Your task to perform on an android device: turn off smart reply in the gmail app Image 0: 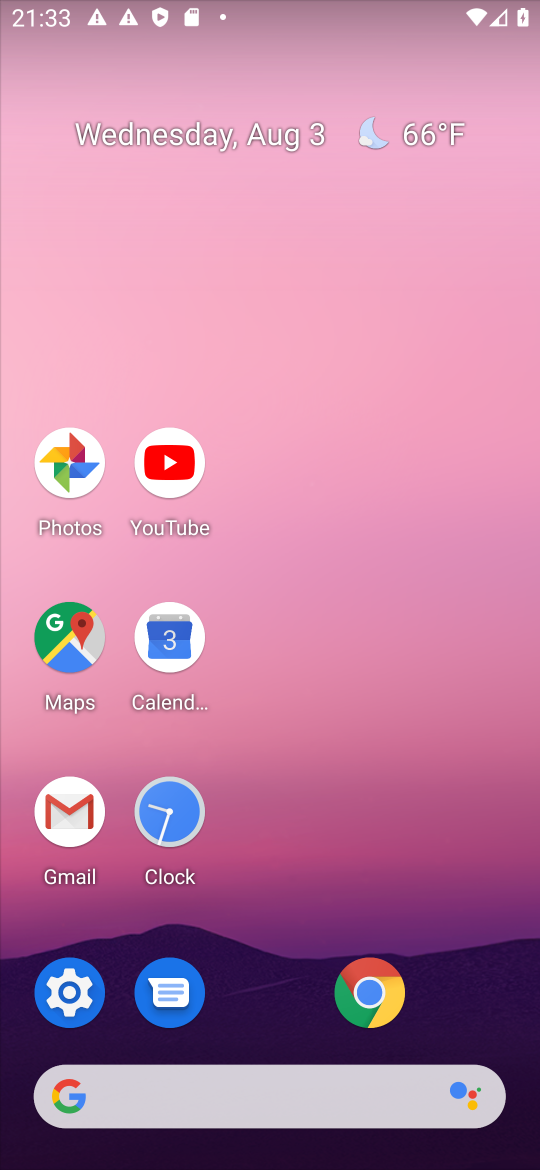
Step 0: click (52, 807)
Your task to perform on an android device: turn off smart reply in the gmail app Image 1: 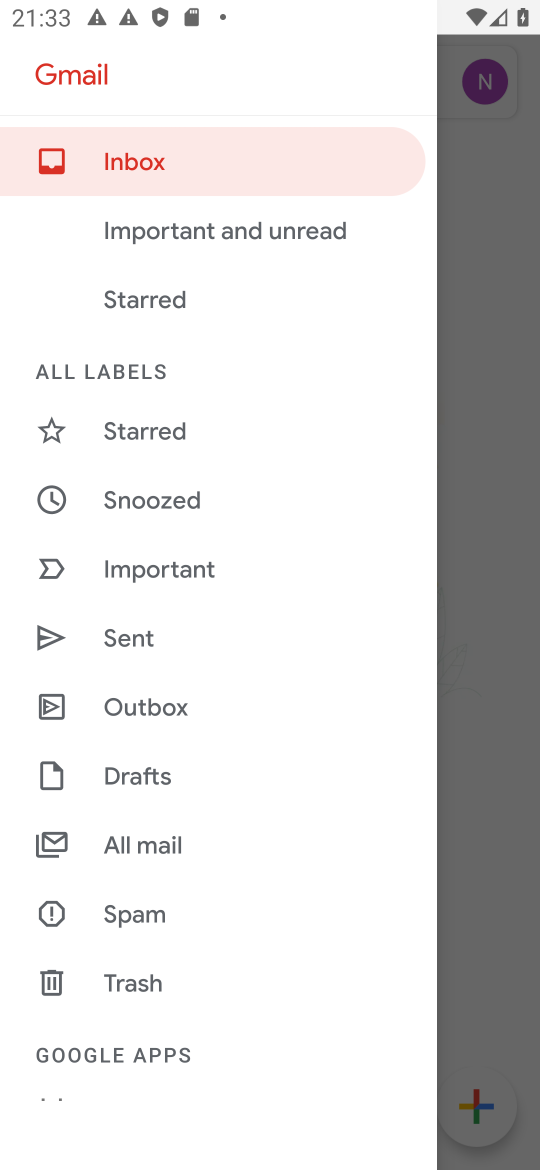
Step 1: drag from (270, 904) to (190, 151)
Your task to perform on an android device: turn off smart reply in the gmail app Image 2: 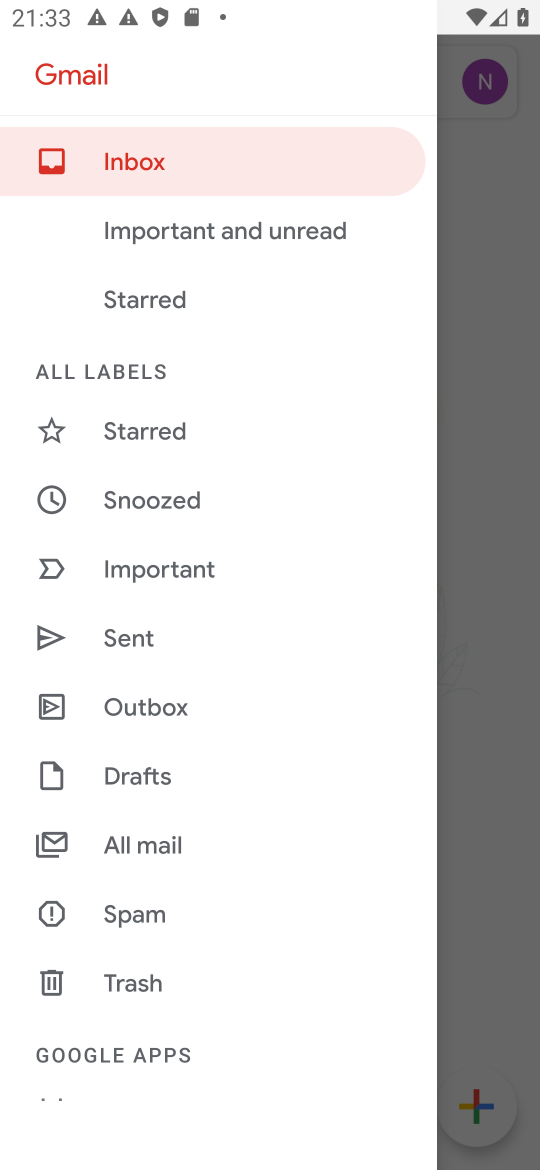
Step 2: drag from (234, 882) to (248, 206)
Your task to perform on an android device: turn off smart reply in the gmail app Image 3: 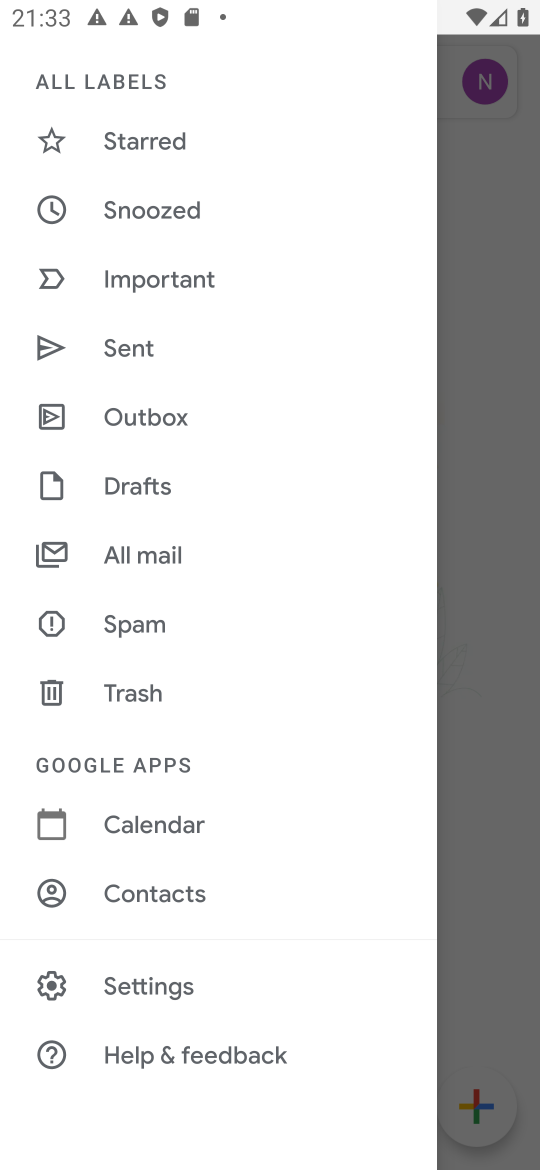
Step 3: click (148, 987)
Your task to perform on an android device: turn off smart reply in the gmail app Image 4: 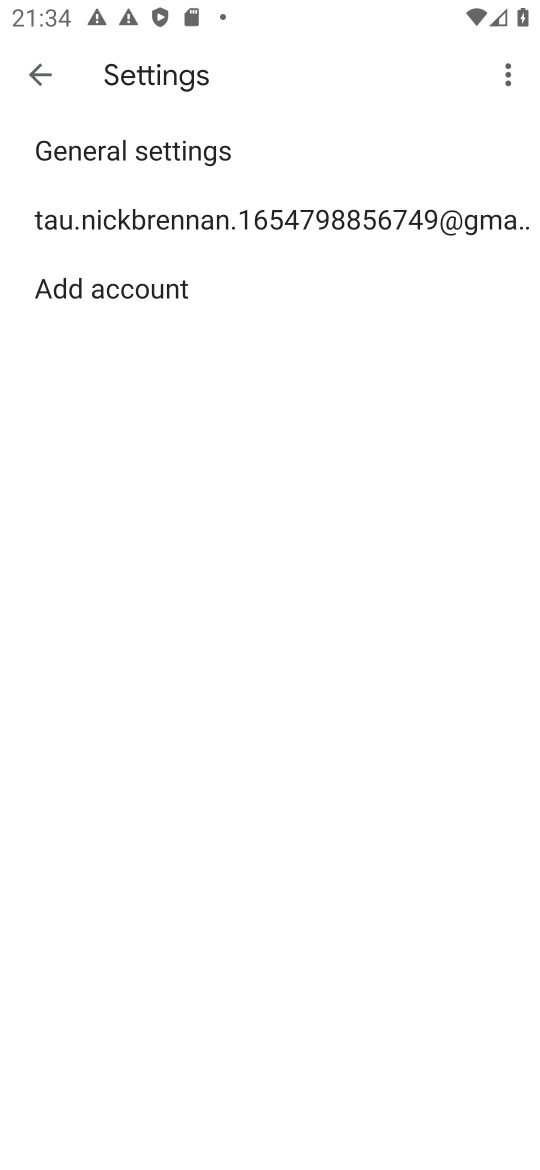
Step 4: click (172, 214)
Your task to perform on an android device: turn off smart reply in the gmail app Image 5: 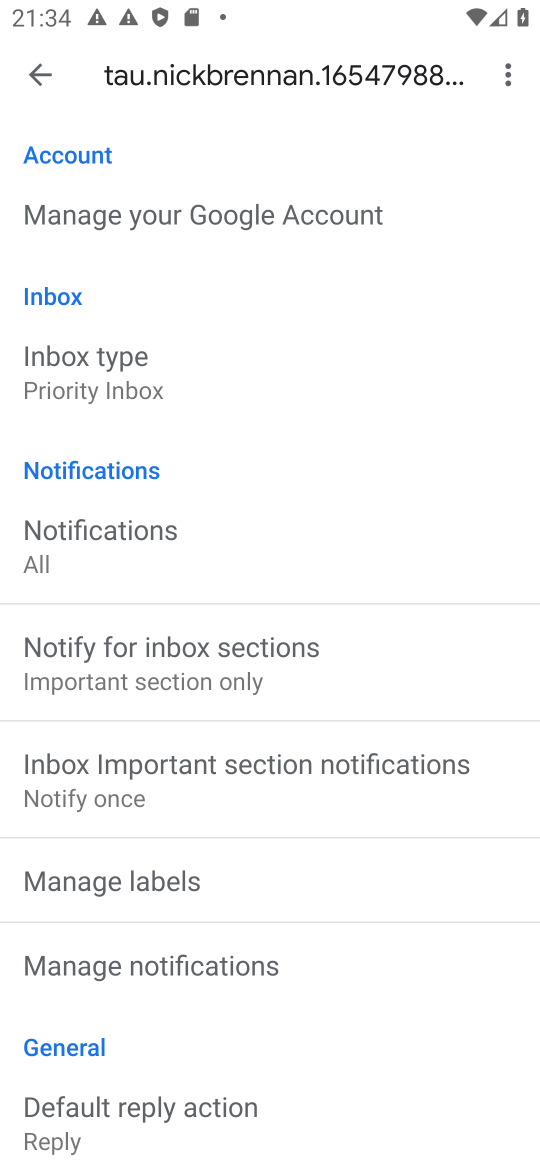
Step 5: drag from (292, 1009) to (277, 390)
Your task to perform on an android device: turn off smart reply in the gmail app Image 6: 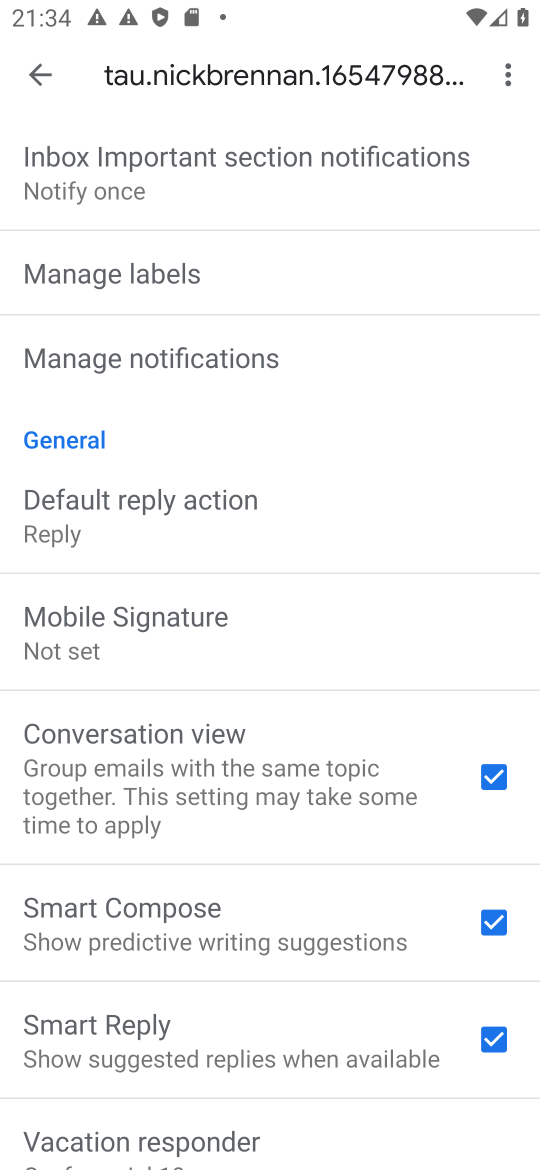
Step 6: click (492, 1032)
Your task to perform on an android device: turn off smart reply in the gmail app Image 7: 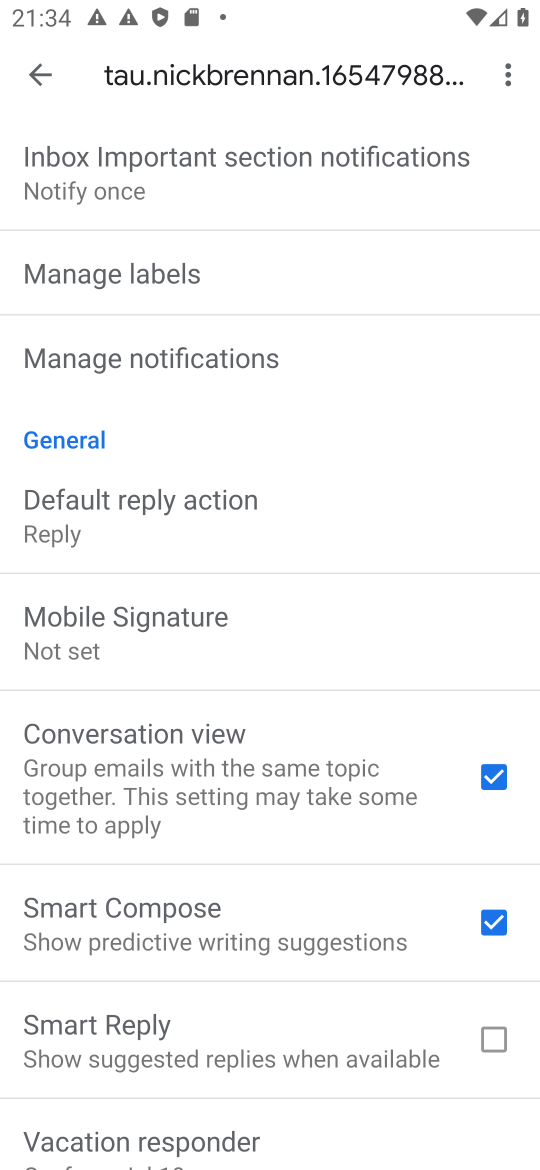
Step 7: task complete